Your task to perform on an android device: turn off improve location accuracy Image 0: 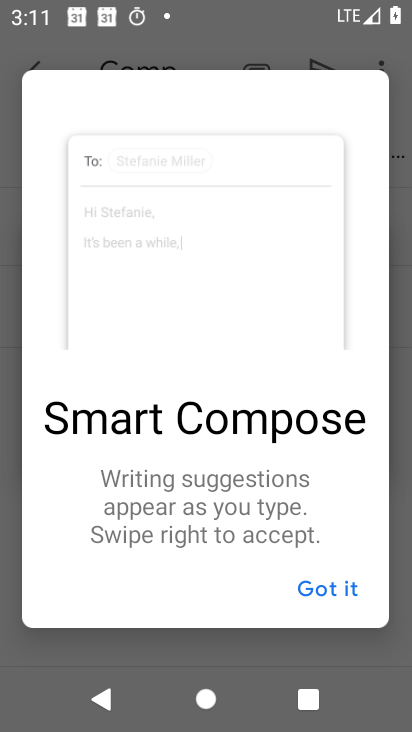
Step 0: press home button
Your task to perform on an android device: turn off improve location accuracy Image 1: 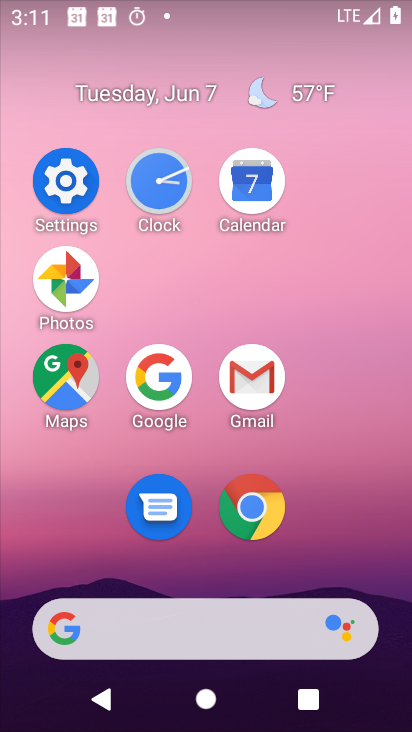
Step 1: click (57, 195)
Your task to perform on an android device: turn off improve location accuracy Image 2: 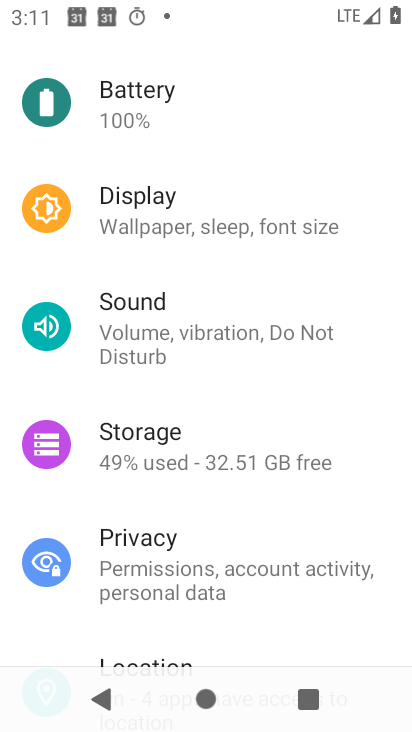
Step 2: drag from (227, 598) to (246, 209)
Your task to perform on an android device: turn off improve location accuracy Image 3: 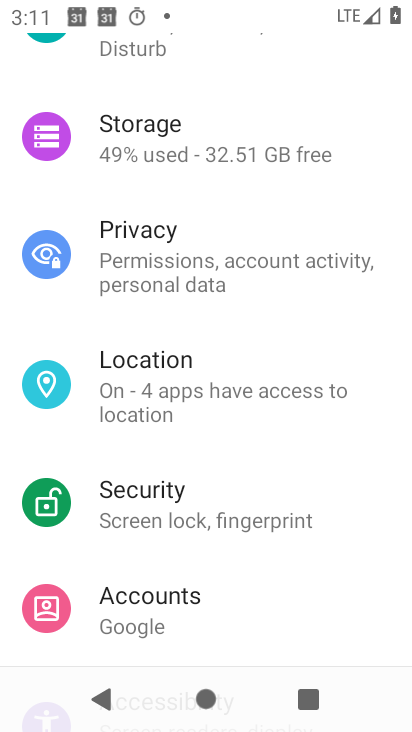
Step 3: click (227, 374)
Your task to perform on an android device: turn off improve location accuracy Image 4: 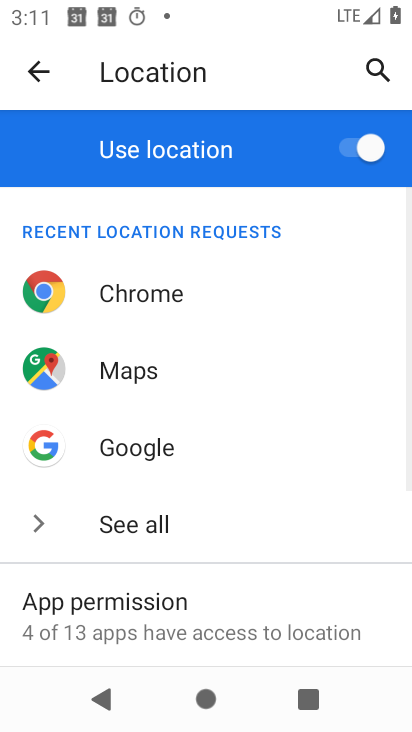
Step 4: drag from (243, 421) to (281, 82)
Your task to perform on an android device: turn off improve location accuracy Image 5: 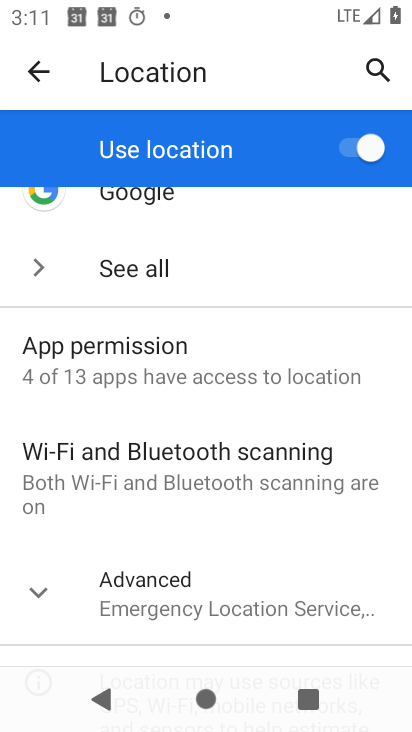
Step 5: click (183, 594)
Your task to perform on an android device: turn off improve location accuracy Image 6: 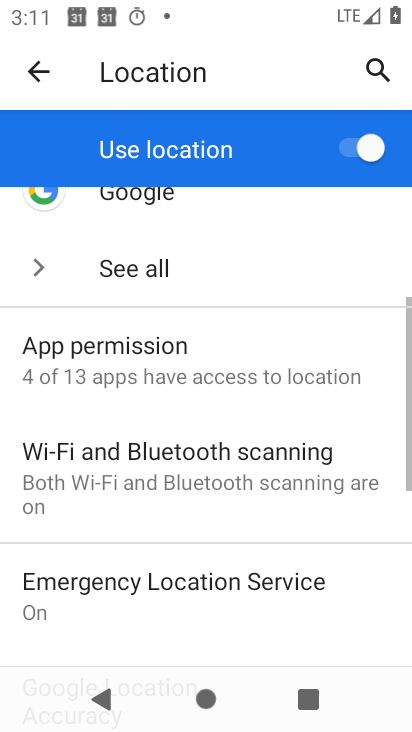
Step 6: drag from (180, 584) to (202, 182)
Your task to perform on an android device: turn off improve location accuracy Image 7: 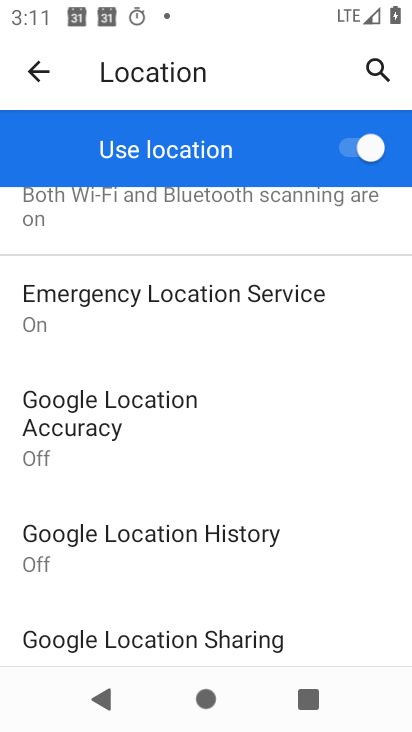
Step 7: click (182, 421)
Your task to perform on an android device: turn off improve location accuracy Image 8: 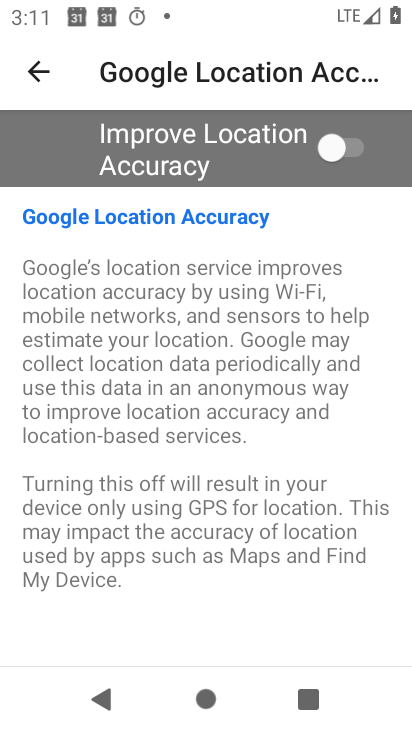
Step 8: task complete